Your task to perform on an android device: change the upload size in google photos Image 0: 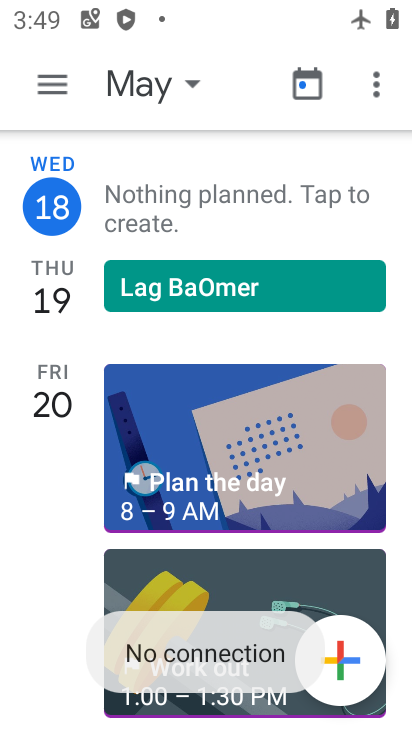
Step 0: press home button
Your task to perform on an android device: change the upload size in google photos Image 1: 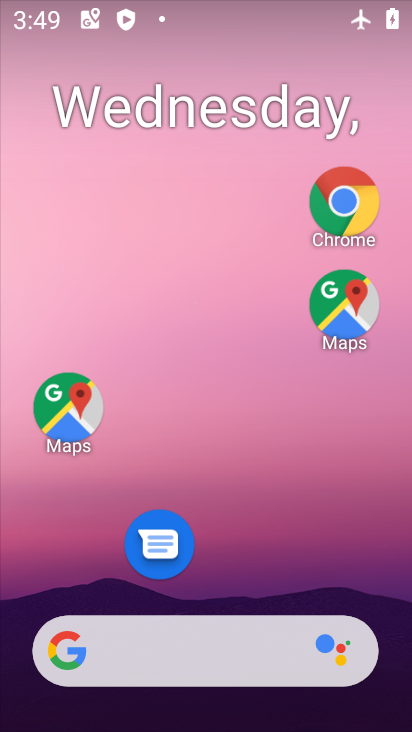
Step 1: click (186, 676)
Your task to perform on an android device: change the upload size in google photos Image 2: 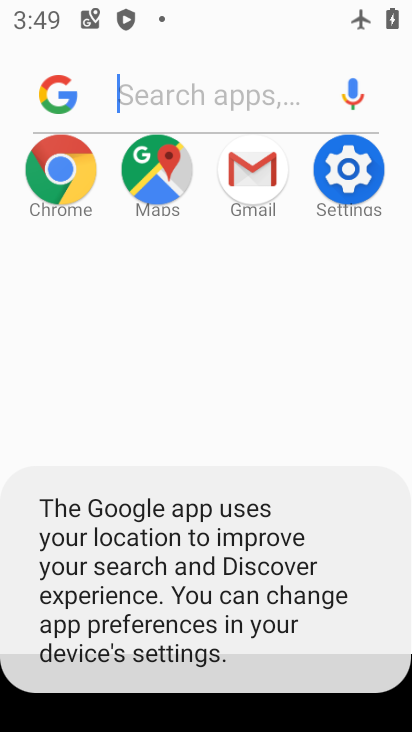
Step 2: press home button
Your task to perform on an android device: change the upload size in google photos Image 3: 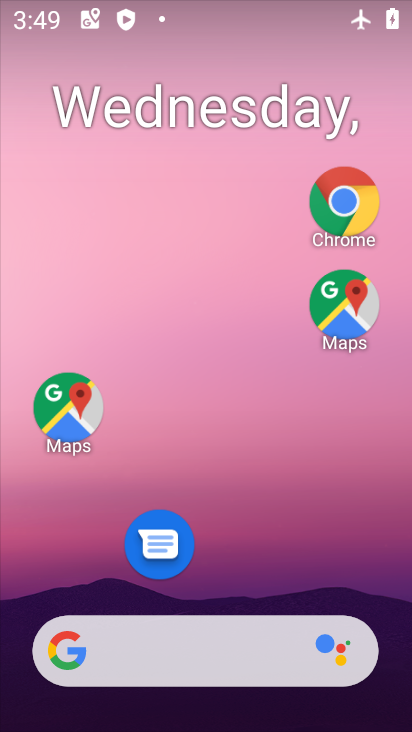
Step 3: click (210, 172)
Your task to perform on an android device: change the upload size in google photos Image 4: 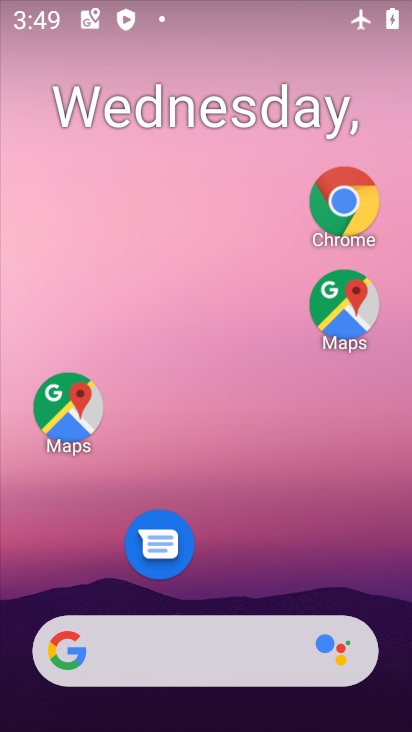
Step 4: drag from (205, 540) to (220, 60)
Your task to perform on an android device: change the upload size in google photos Image 5: 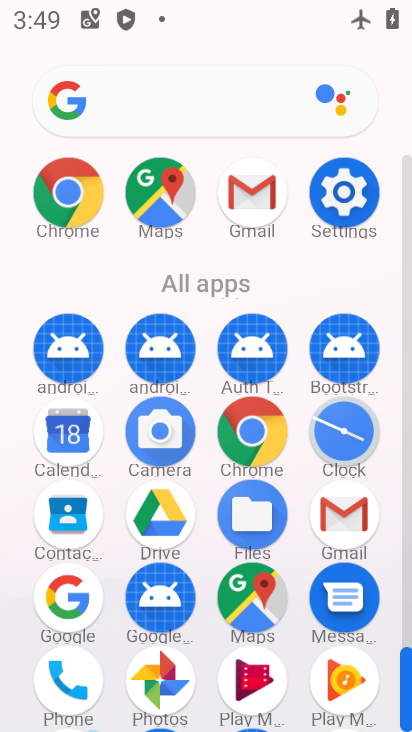
Step 5: click (166, 664)
Your task to perform on an android device: change the upload size in google photos Image 6: 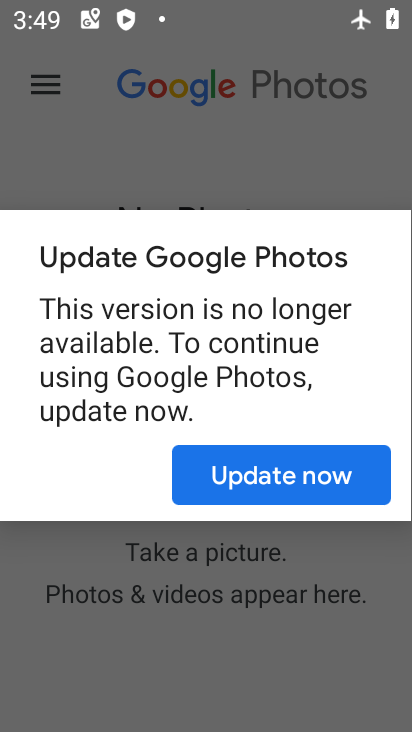
Step 6: click (312, 492)
Your task to perform on an android device: change the upload size in google photos Image 7: 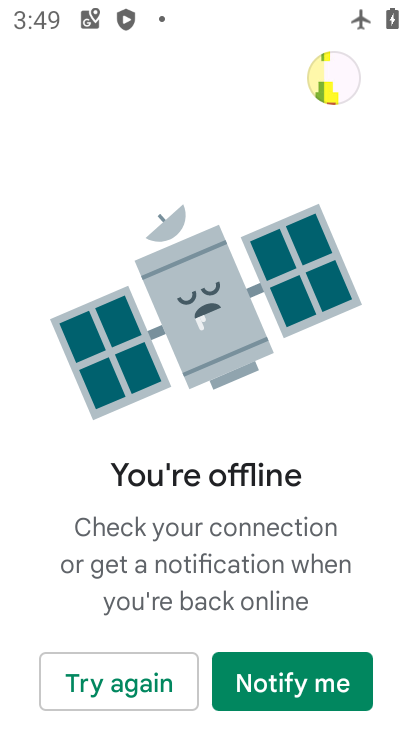
Step 7: press home button
Your task to perform on an android device: change the upload size in google photos Image 8: 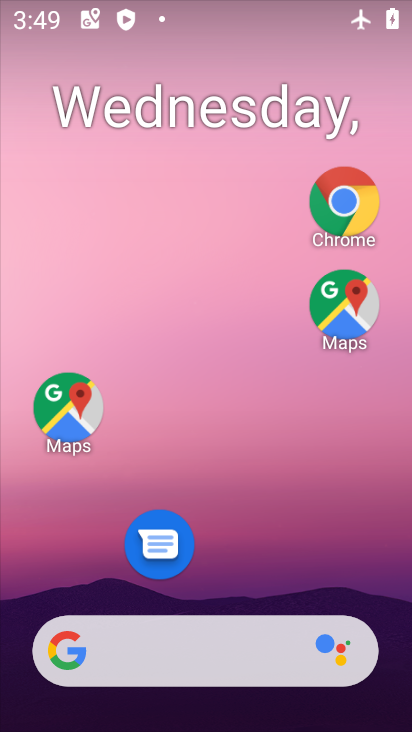
Step 8: drag from (235, 591) to (259, 98)
Your task to perform on an android device: change the upload size in google photos Image 9: 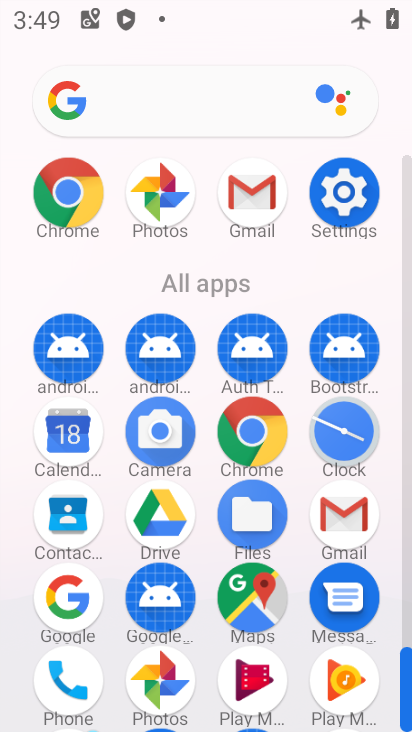
Step 9: click (162, 676)
Your task to perform on an android device: change the upload size in google photos Image 10: 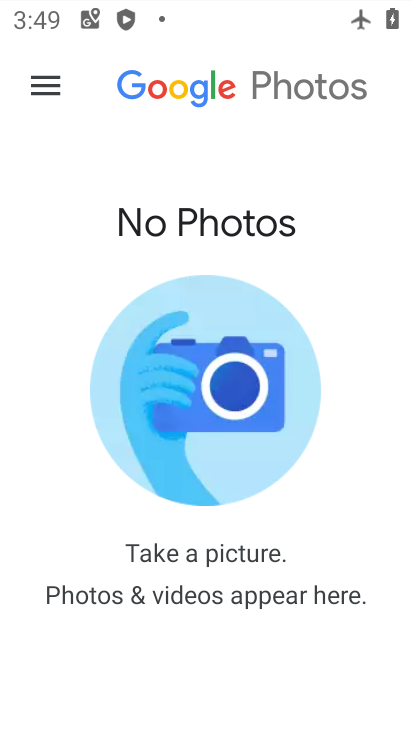
Step 10: click (168, 672)
Your task to perform on an android device: change the upload size in google photos Image 11: 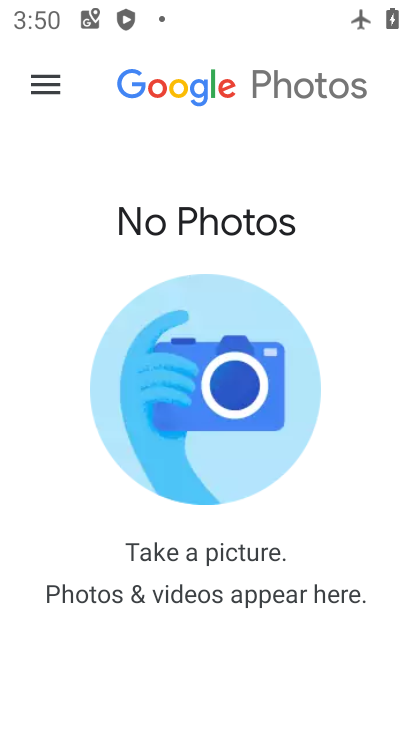
Step 11: click (39, 84)
Your task to perform on an android device: change the upload size in google photos Image 12: 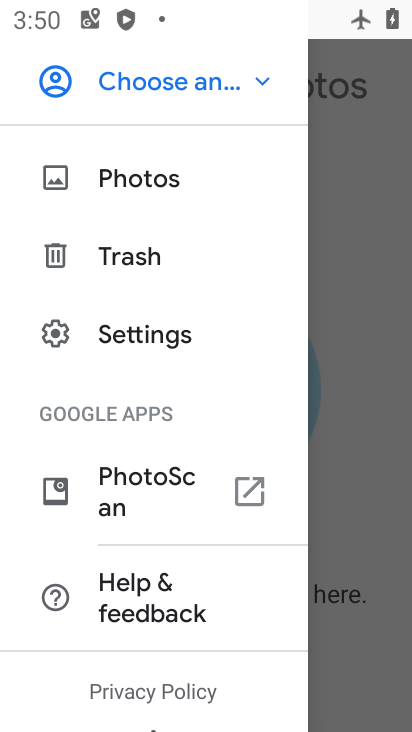
Step 12: click (138, 351)
Your task to perform on an android device: change the upload size in google photos Image 13: 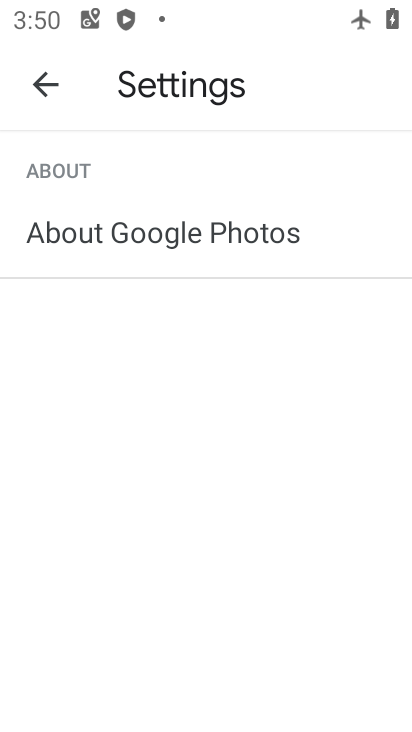
Step 13: click (40, 84)
Your task to perform on an android device: change the upload size in google photos Image 14: 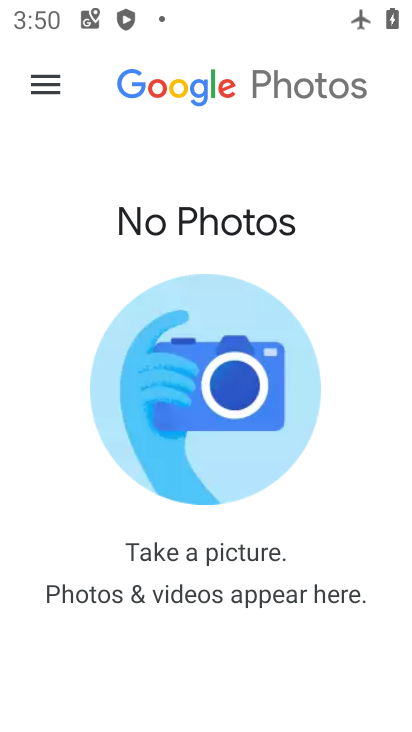
Step 14: click (52, 76)
Your task to perform on an android device: change the upload size in google photos Image 15: 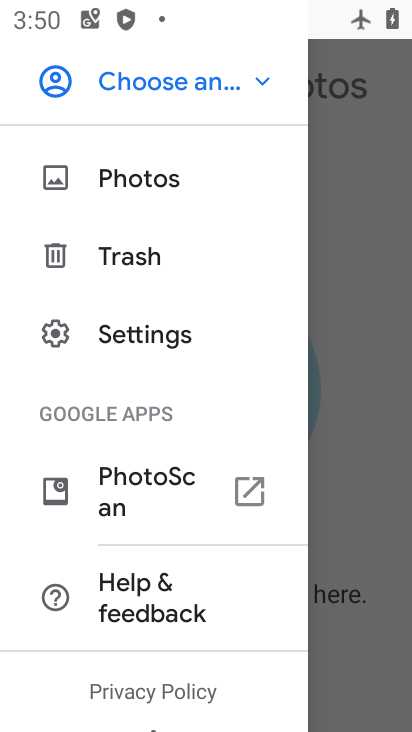
Step 15: click (202, 87)
Your task to perform on an android device: change the upload size in google photos Image 16: 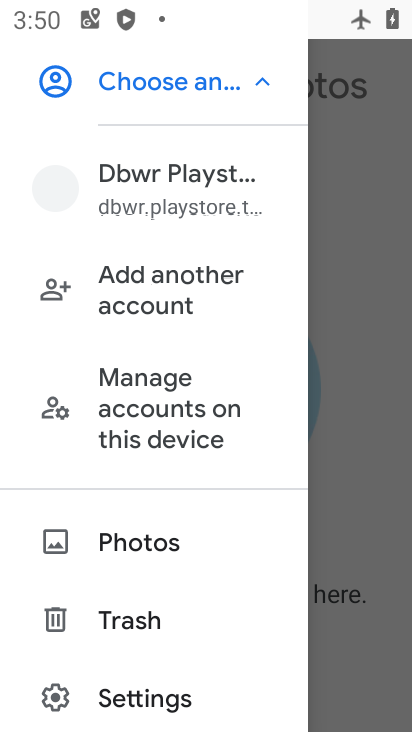
Step 16: click (184, 162)
Your task to perform on an android device: change the upload size in google photos Image 17: 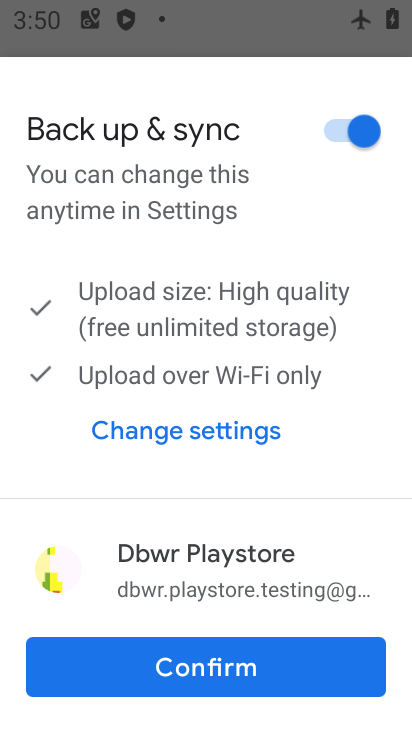
Step 17: click (186, 660)
Your task to perform on an android device: change the upload size in google photos Image 18: 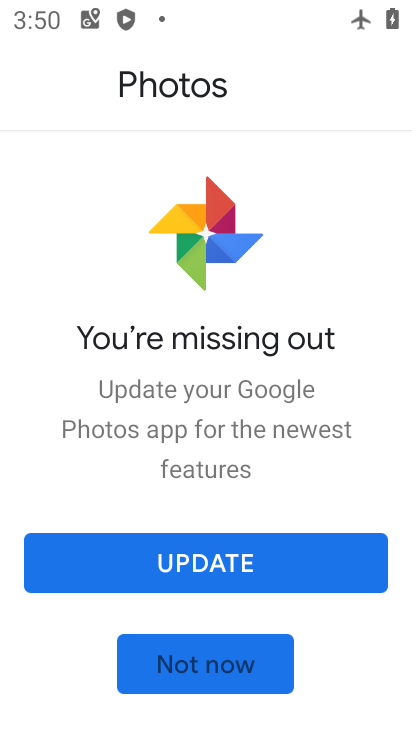
Step 18: click (183, 668)
Your task to perform on an android device: change the upload size in google photos Image 19: 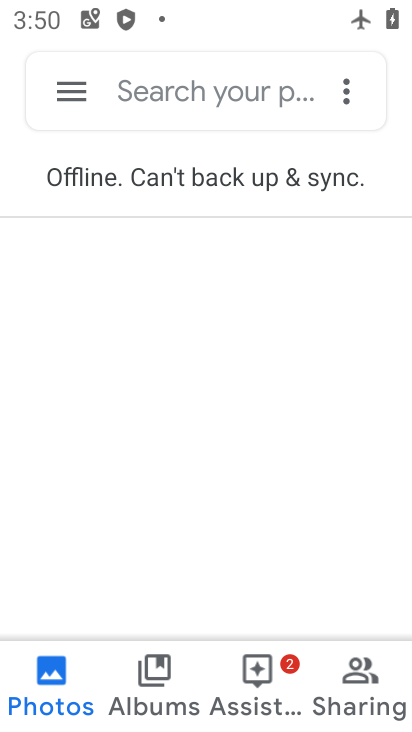
Step 19: click (75, 90)
Your task to perform on an android device: change the upload size in google photos Image 20: 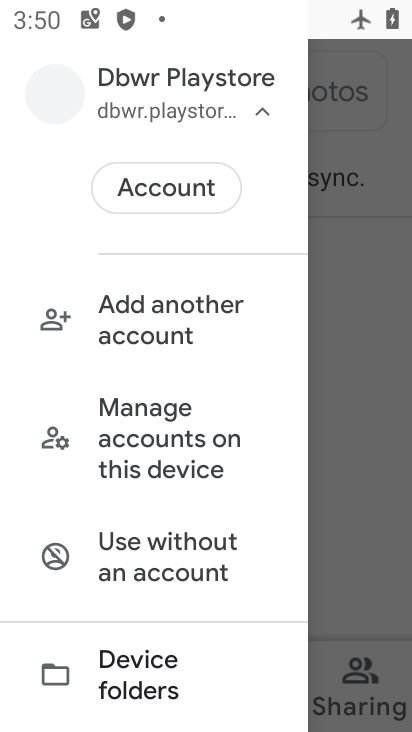
Step 20: click (168, 108)
Your task to perform on an android device: change the upload size in google photos Image 21: 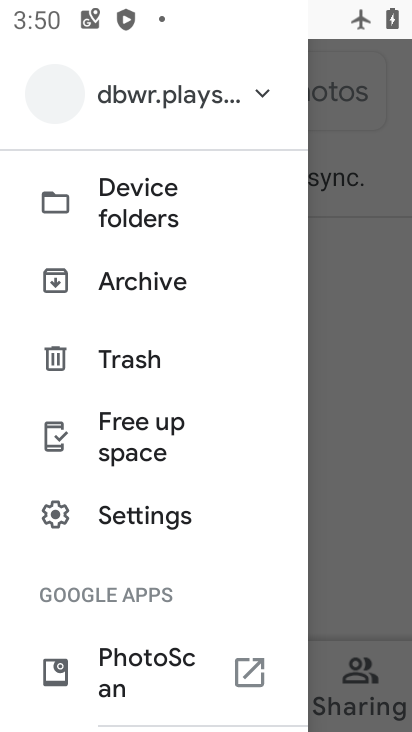
Step 21: click (140, 526)
Your task to perform on an android device: change the upload size in google photos Image 22: 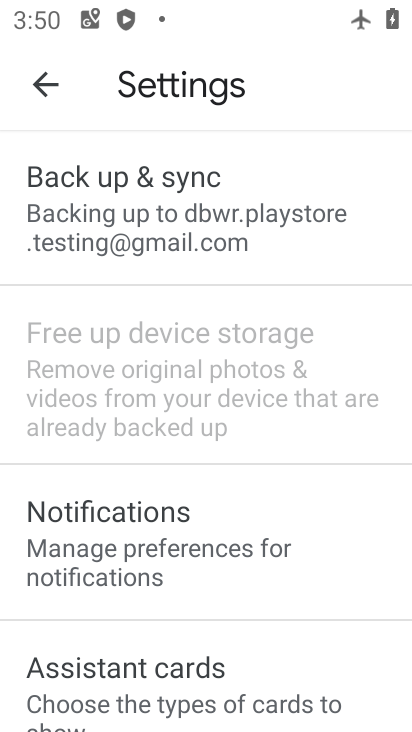
Step 22: click (197, 209)
Your task to perform on an android device: change the upload size in google photos Image 23: 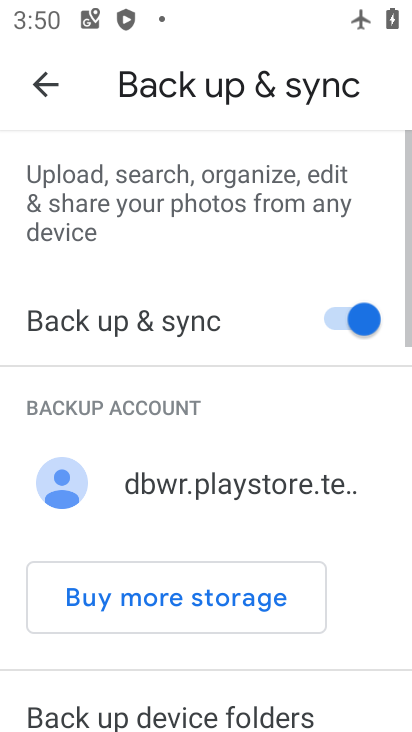
Step 23: drag from (180, 657) to (231, 274)
Your task to perform on an android device: change the upload size in google photos Image 24: 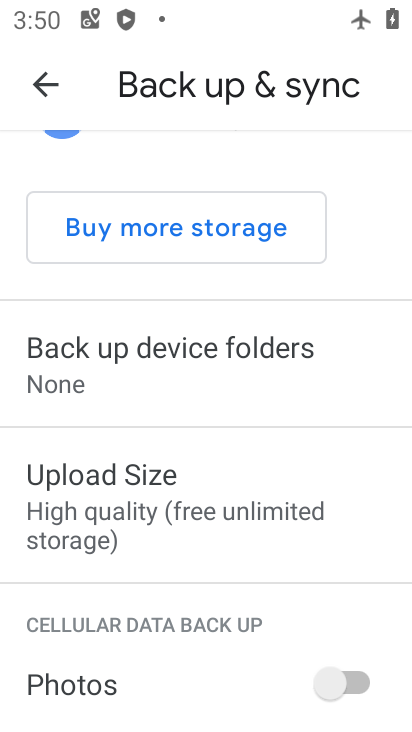
Step 24: click (148, 523)
Your task to perform on an android device: change the upload size in google photos Image 25: 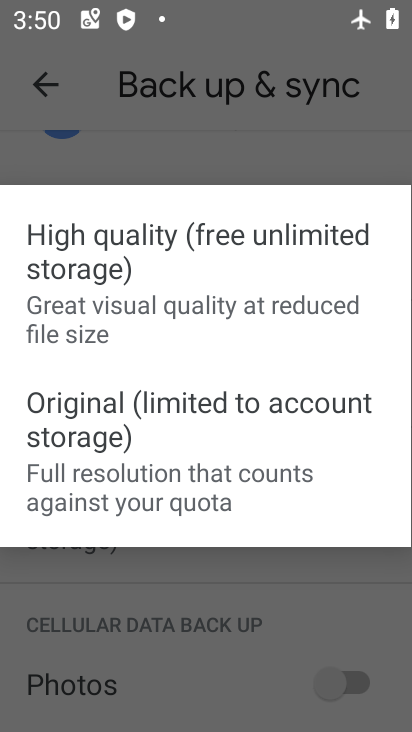
Step 25: click (161, 489)
Your task to perform on an android device: change the upload size in google photos Image 26: 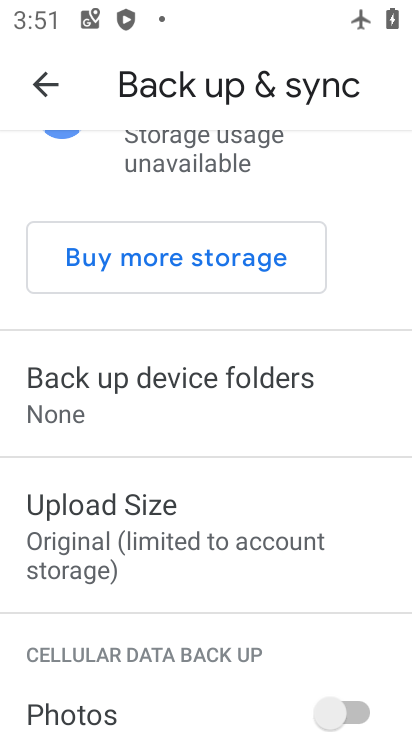
Step 26: task complete